Your task to perform on an android device: toggle notification dots Image 0: 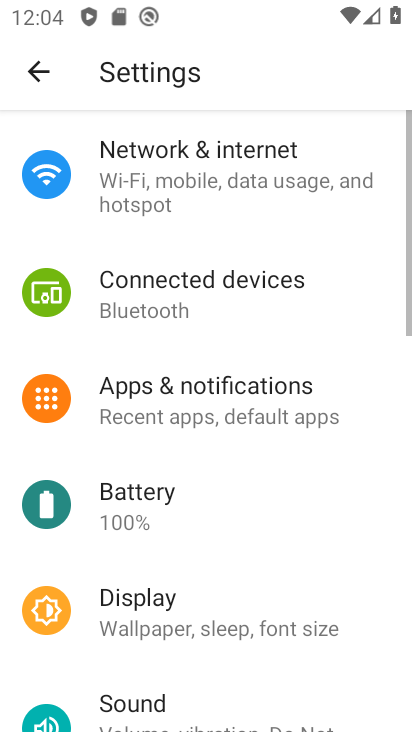
Step 0: press home button
Your task to perform on an android device: toggle notification dots Image 1: 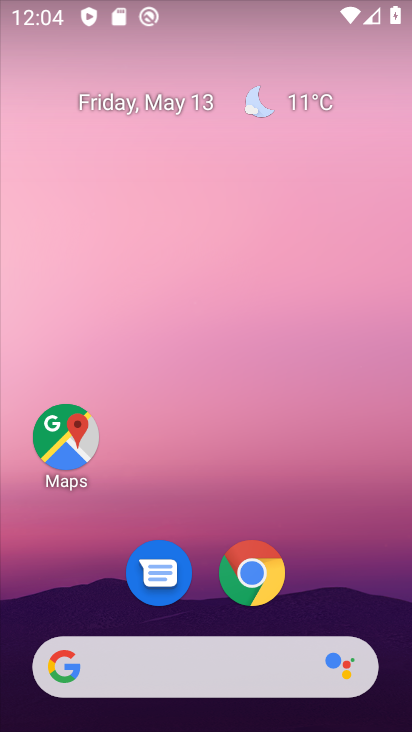
Step 1: drag from (211, 700) to (297, 281)
Your task to perform on an android device: toggle notification dots Image 2: 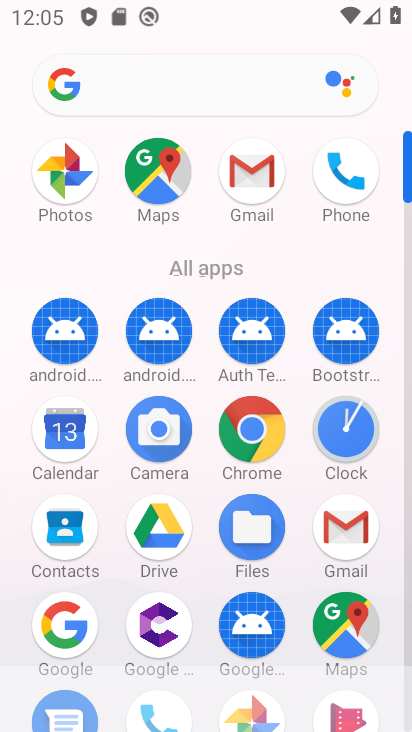
Step 2: drag from (203, 548) to (239, 407)
Your task to perform on an android device: toggle notification dots Image 3: 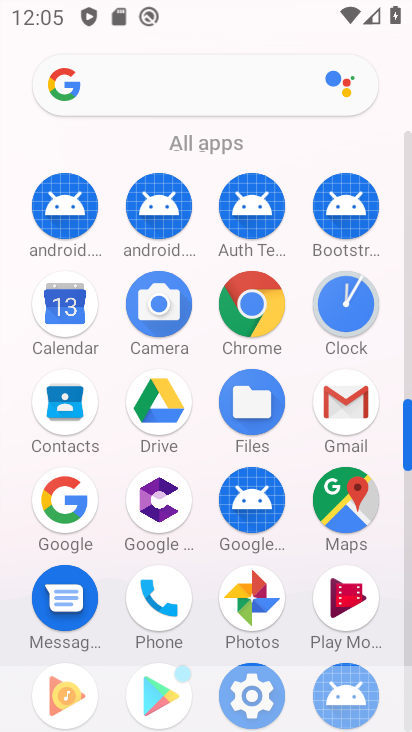
Step 3: click (260, 664)
Your task to perform on an android device: toggle notification dots Image 4: 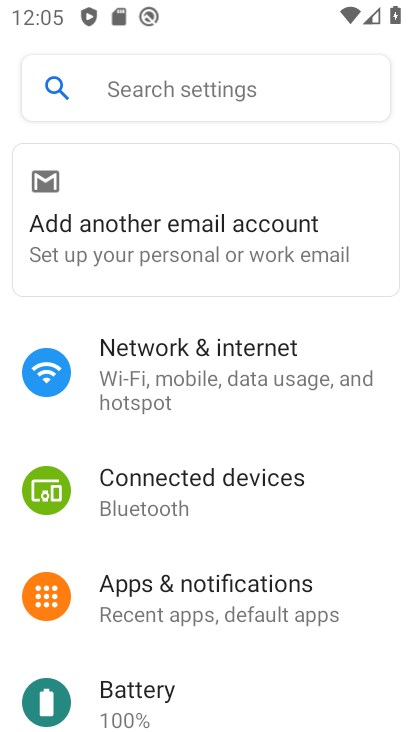
Step 4: click (151, 84)
Your task to perform on an android device: toggle notification dots Image 5: 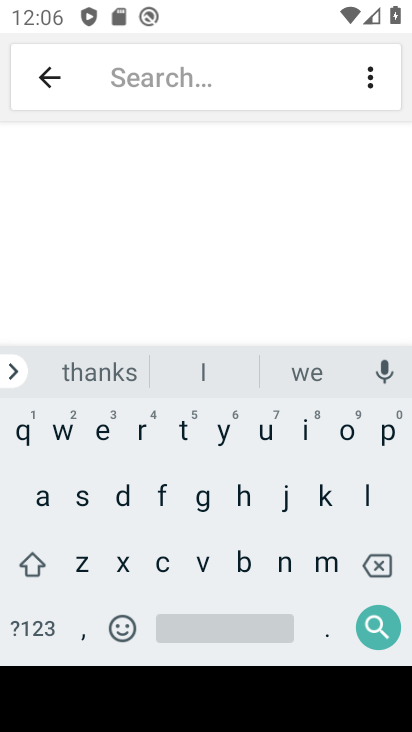
Step 5: click (116, 490)
Your task to perform on an android device: toggle notification dots Image 6: 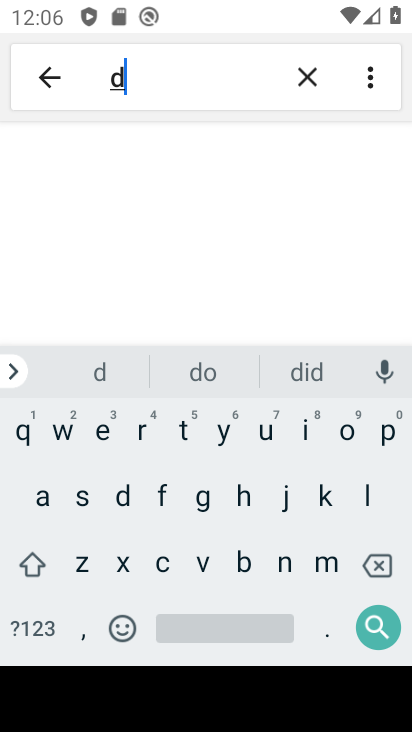
Step 6: click (332, 431)
Your task to perform on an android device: toggle notification dots Image 7: 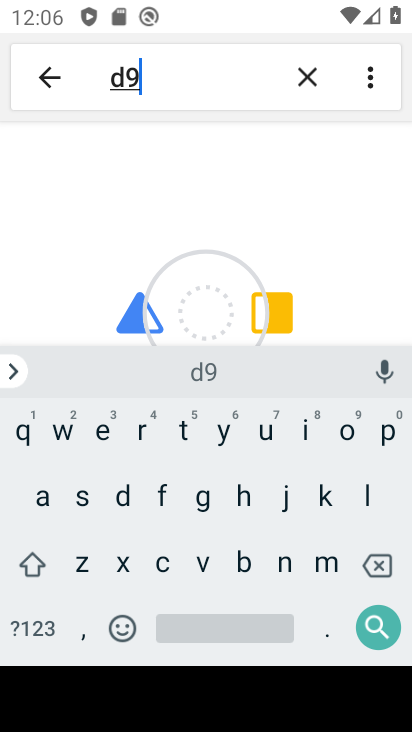
Step 7: click (375, 573)
Your task to perform on an android device: toggle notification dots Image 8: 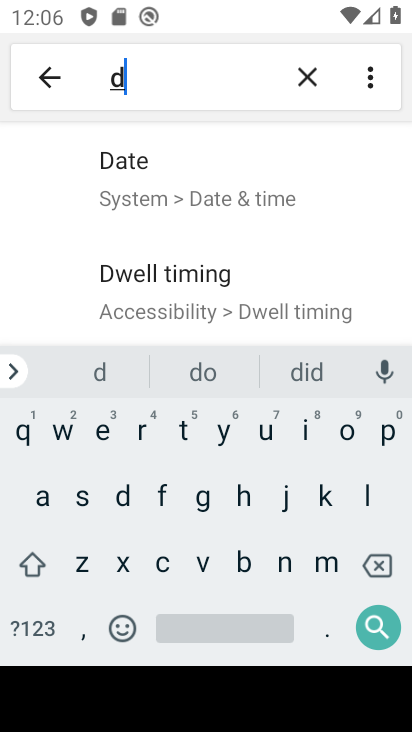
Step 8: click (350, 440)
Your task to perform on an android device: toggle notification dots Image 9: 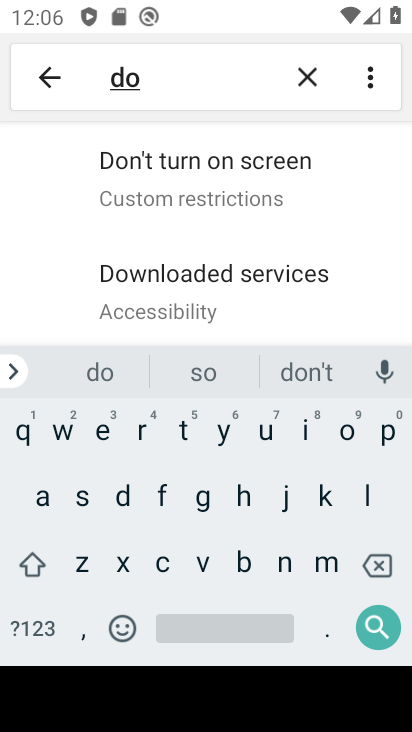
Step 9: click (187, 433)
Your task to perform on an android device: toggle notification dots Image 10: 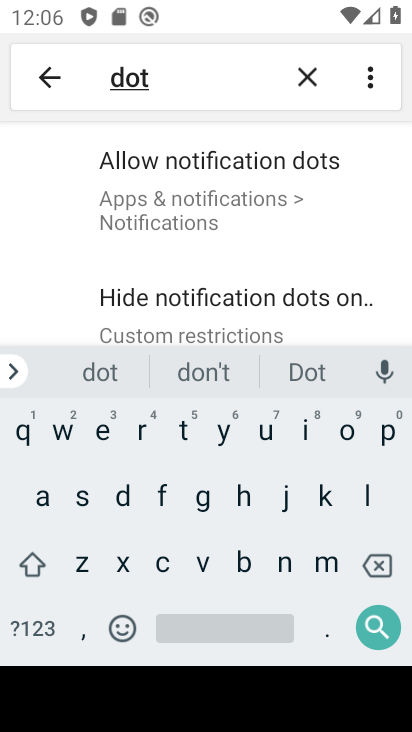
Step 10: click (219, 205)
Your task to perform on an android device: toggle notification dots Image 11: 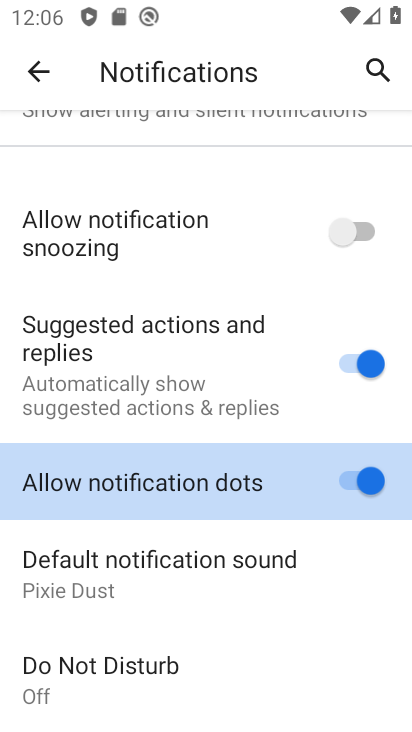
Step 11: task complete